Your task to perform on an android device: Open settings Image 0: 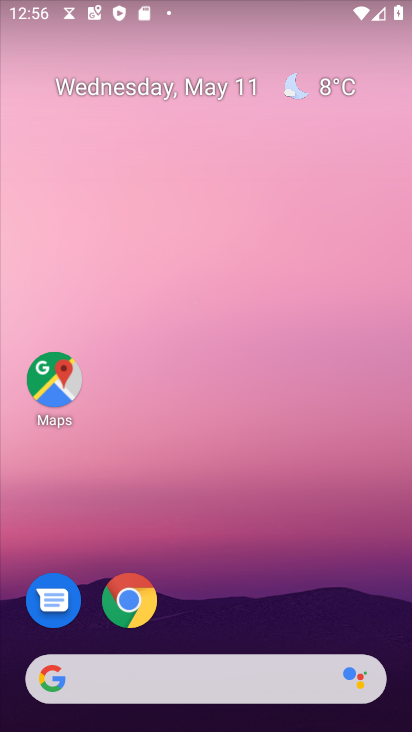
Step 0: drag from (246, 575) to (208, 126)
Your task to perform on an android device: Open settings Image 1: 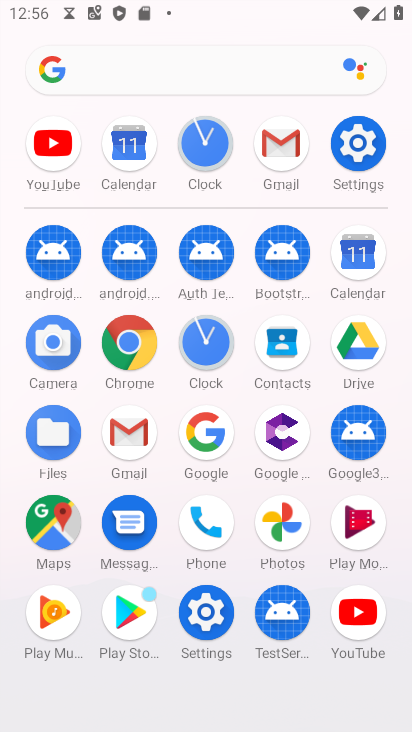
Step 1: click (354, 145)
Your task to perform on an android device: Open settings Image 2: 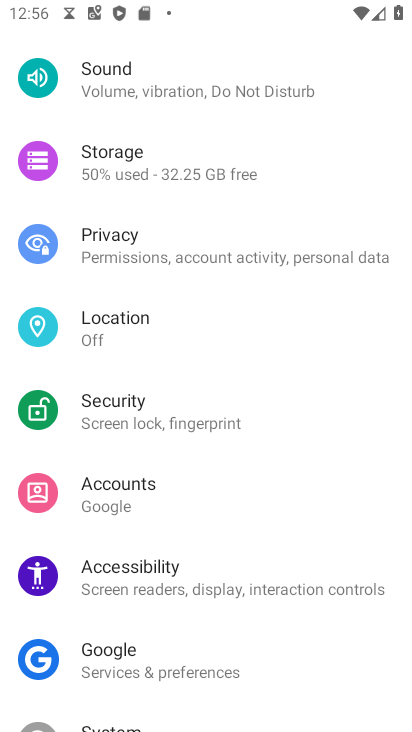
Step 2: task complete